Your task to perform on an android device: Play the new Katy Perry video on YouTube Image 0: 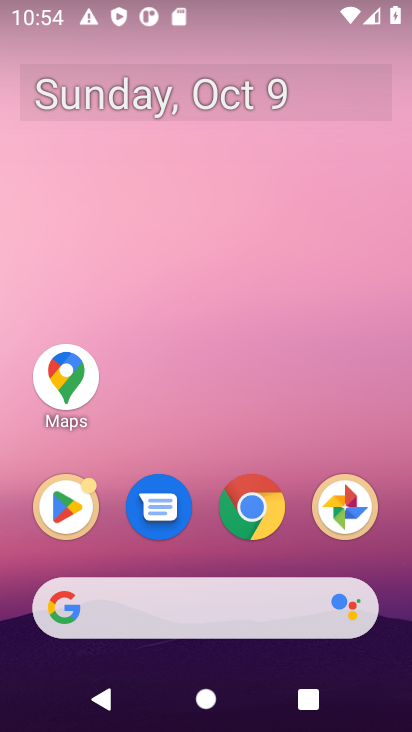
Step 0: press home button
Your task to perform on an android device: Play the new Katy Perry video on YouTube Image 1: 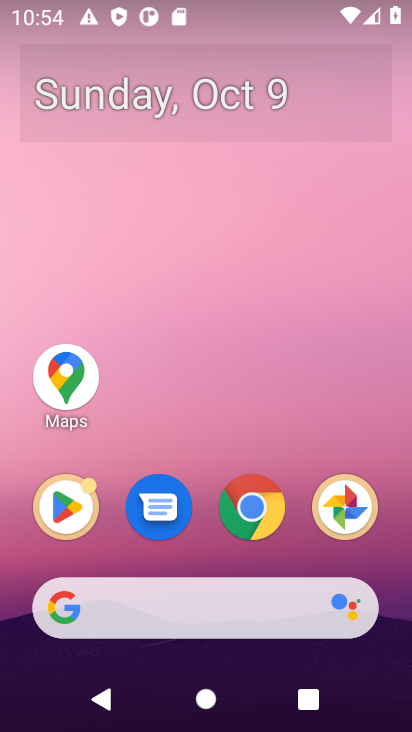
Step 1: drag from (332, 422) to (323, 86)
Your task to perform on an android device: Play the new Katy Perry video on YouTube Image 2: 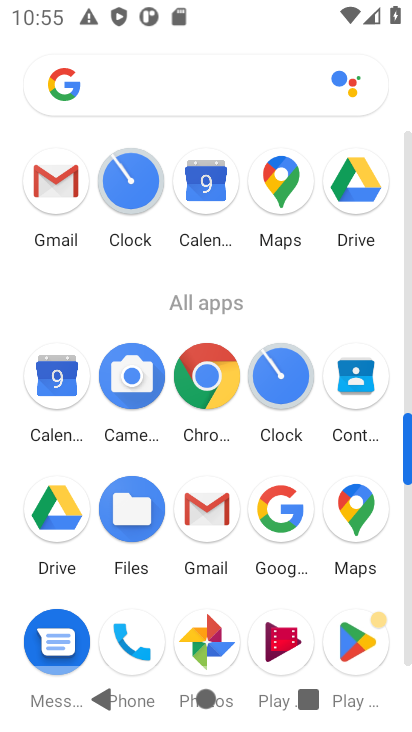
Step 2: drag from (363, 289) to (356, 69)
Your task to perform on an android device: Play the new Katy Perry video on YouTube Image 3: 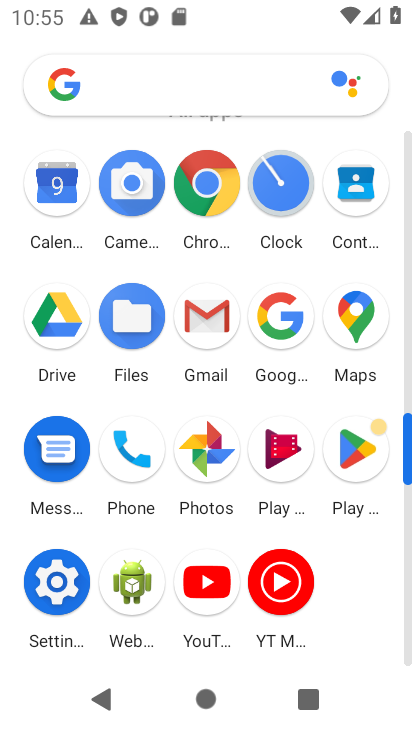
Step 3: drag from (356, 587) to (332, 168)
Your task to perform on an android device: Play the new Katy Perry video on YouTube Image 4: 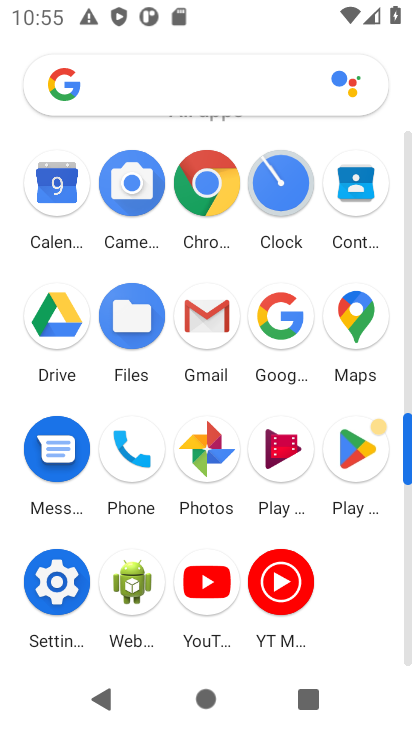
Step 4: click (208, 582)
Your task to perform on an android device: Play the new Katy Perry video on YouTube Image 5: 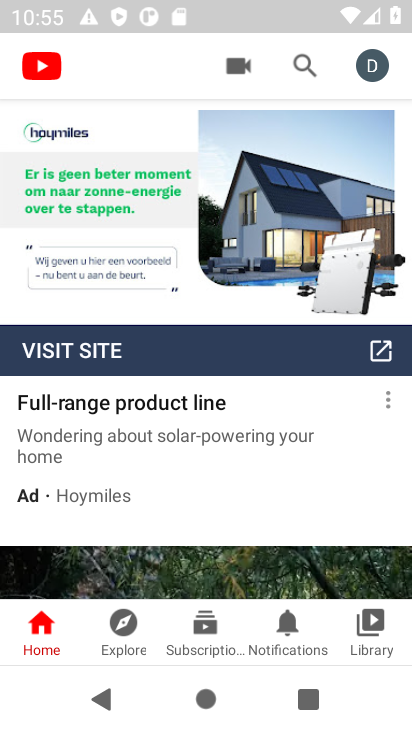
Step 5: click (296, 66)
Your task to perform on an android device: Play the new Katy Perry video on YouTube Image 6: 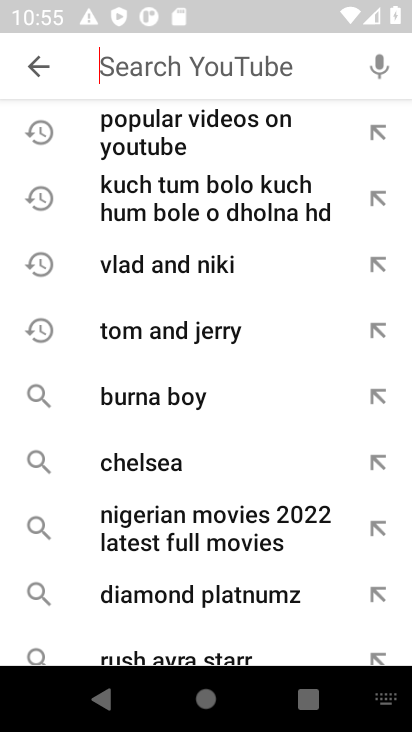
Step 6: type " Katy Perry video"
Your task to perform on an android device: Play the new Katy Perry video on YouTube Image 7: 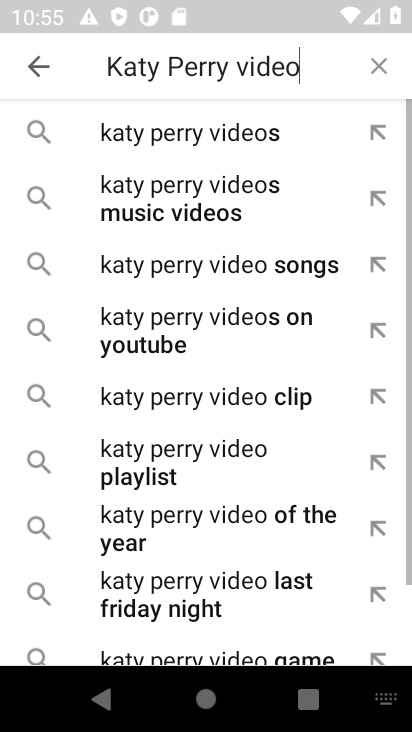
Step 7: press enter
Your task to perform on an android device: Play the new Katy Perry video on YouTube Image 8: 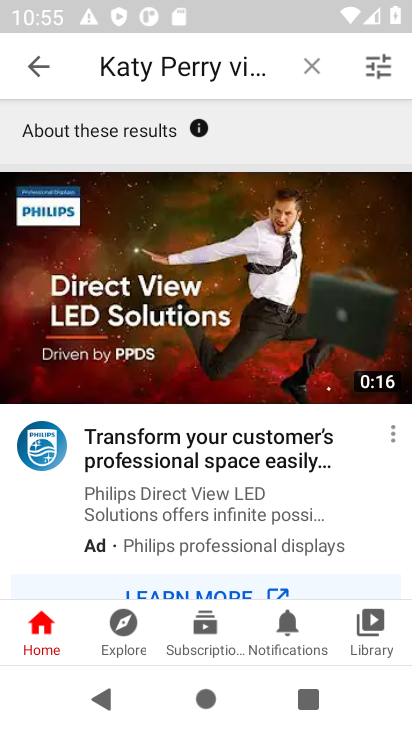
Step 8: drag from (326, 489) to (313, 210)
Your task to perform on an android device: Play the new Katy Perry video on YouTube Image 9: 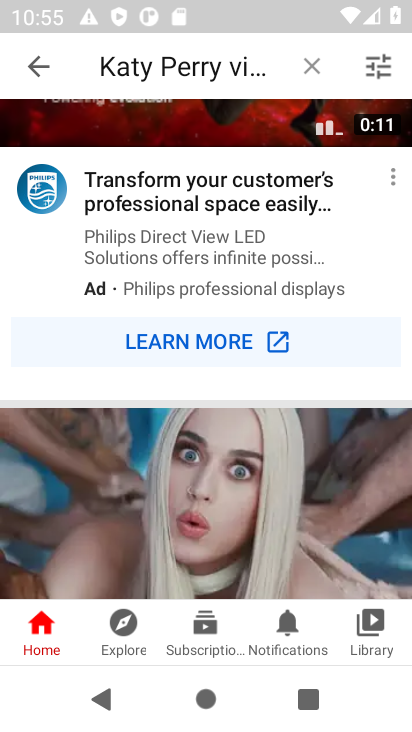
Step 9: drag from (272, 508) to (298, 208)
Your task to perform on an android device: Play the new Katy Perry video on YouTube Image 10: 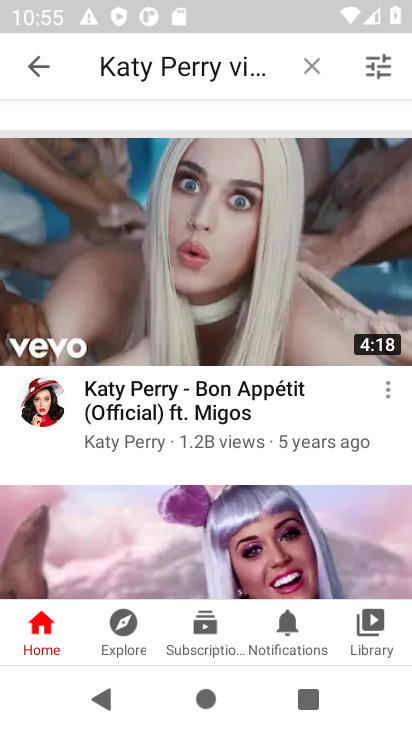
Step 10: click (242, 312)
Your task to perform on an android device: Play the new Katy Perry video on YouTube Image 11: 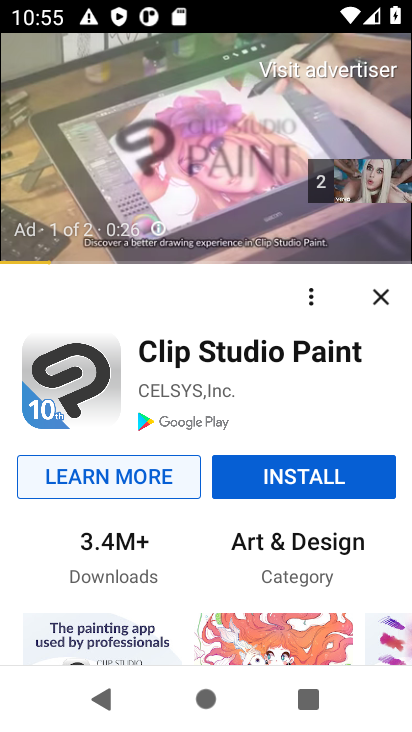
Step 11: click (382, 294)
Your task to perform on an android device: Play the new Katy Perry video on YouTube Image 12: 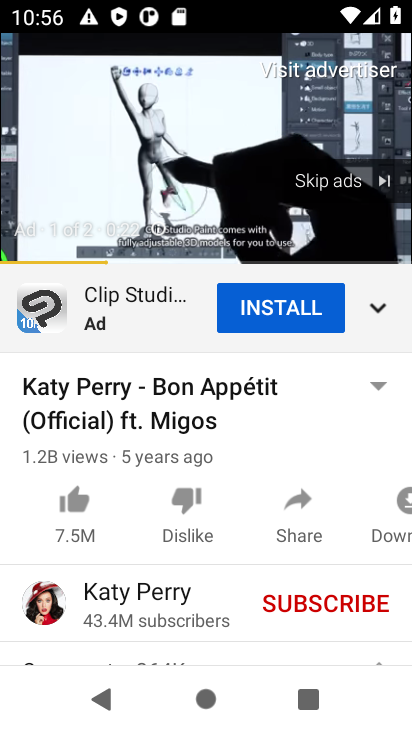
Step 12: click (333, 182)
Your task to perform on an android device: Play the new Katy Perry video on YouTube Image 13: 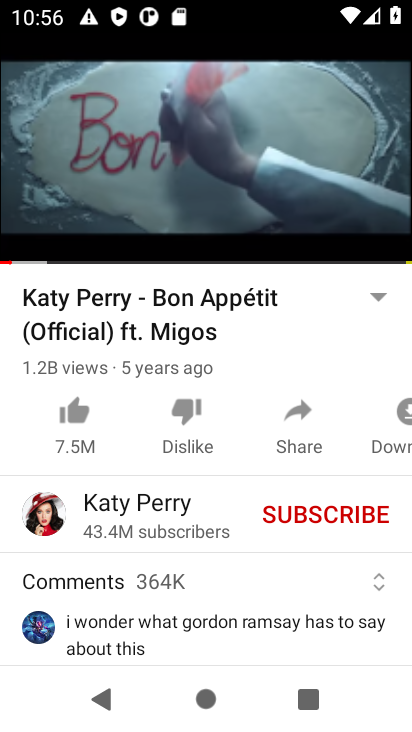
Step 13: task complete